Your task to perform on an android device: Open calendar and show me the first week of next month Image 0: 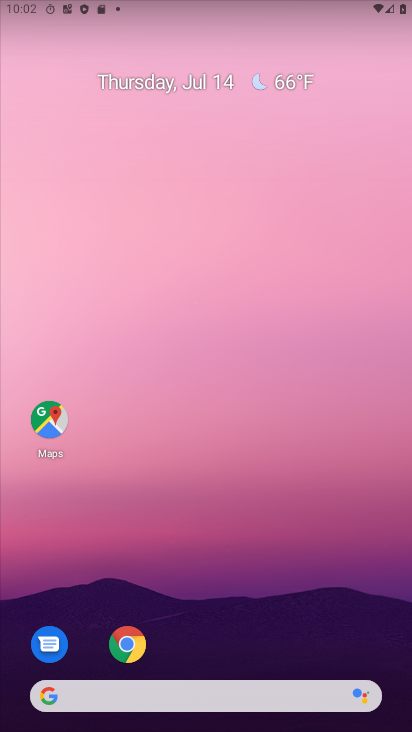
Step 0: drag from (308, 639) to (249, 253)
Your task to perform on an android device: Open calendar and show me the first week of next month Image 1: 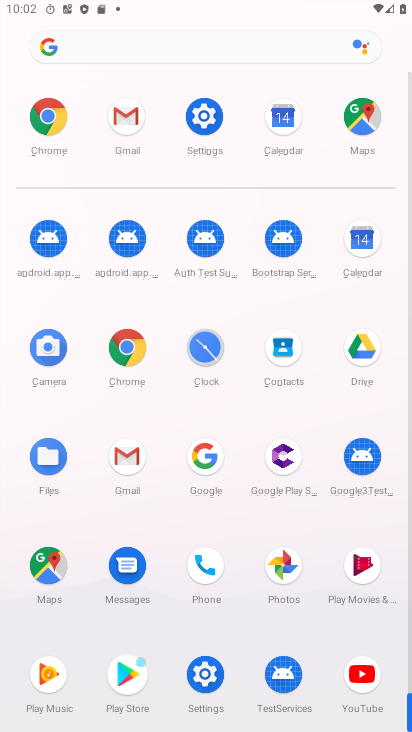
Step 1: click (362, 229)
Your task to perform on an android device: Open calendar and show me the first week of next month Image 2: 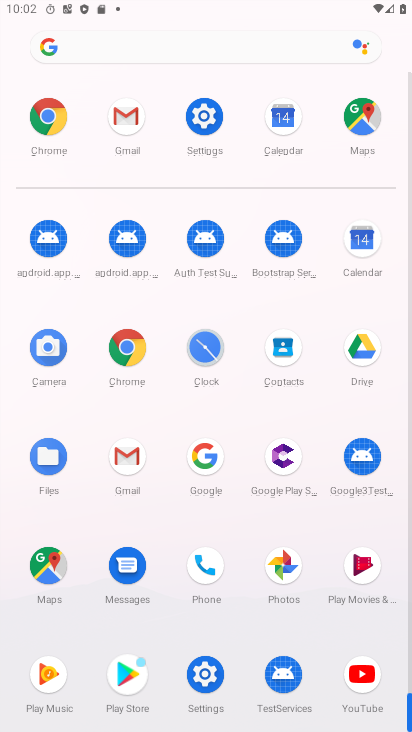
Step 2: click (364, 226)
Your task to perform on an android device: Open calendar and show me the first week of next month Image 3: 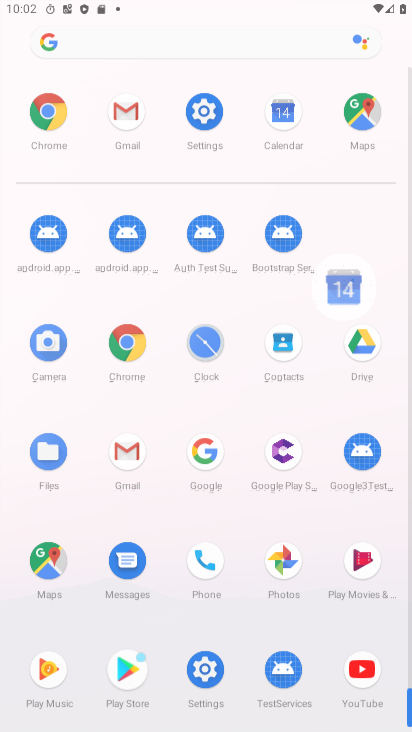
Step 3: click (367, 224)
Your task to perform on an android device: Open calendar and show me the first week of next month Image 4: 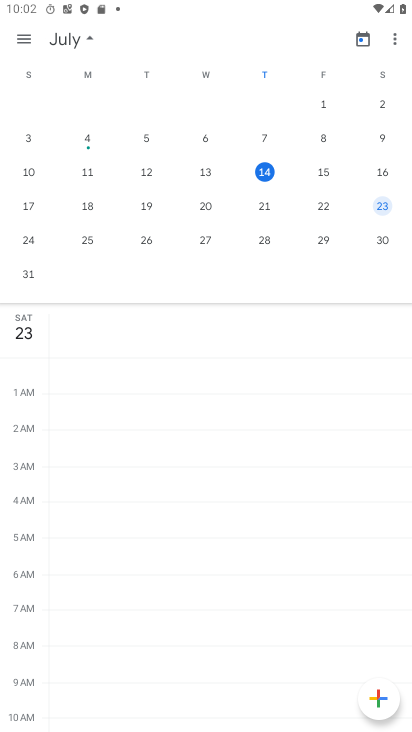
Step 4: drag from (376, 203) to (9, 256)
Your task to perform on an android device: Open calendar and show me the first week of next month Image 5: 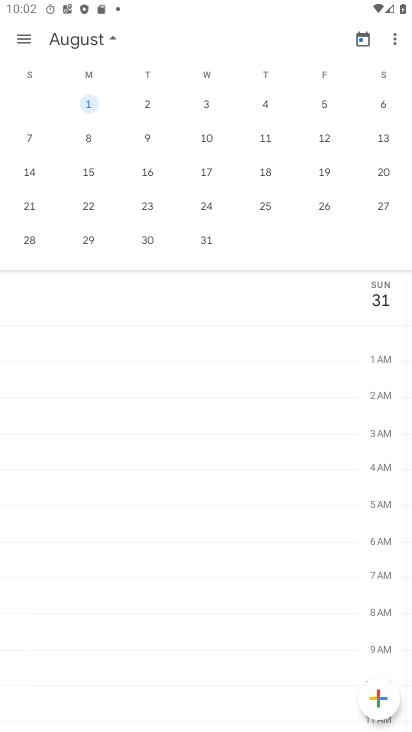
Step 5: drag from (280, 214) to (53, 161)
Your task to perform on an android device: Open calendar and show me the first week of next month Image 6: 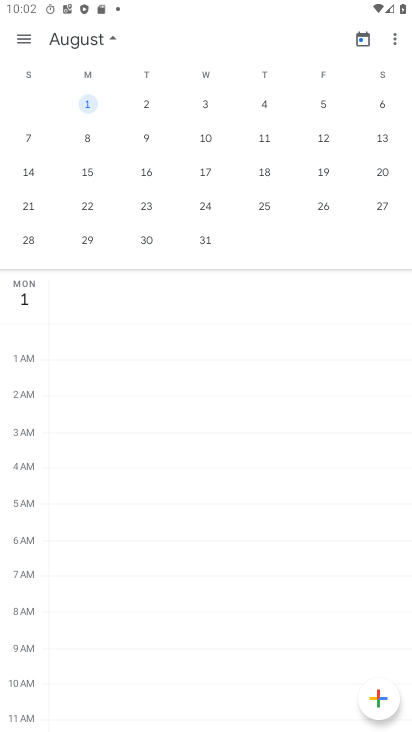
Step 6: click (209, 105)
Your task to perform on an android device: Open calendar and show me the first week of next month Image 7: 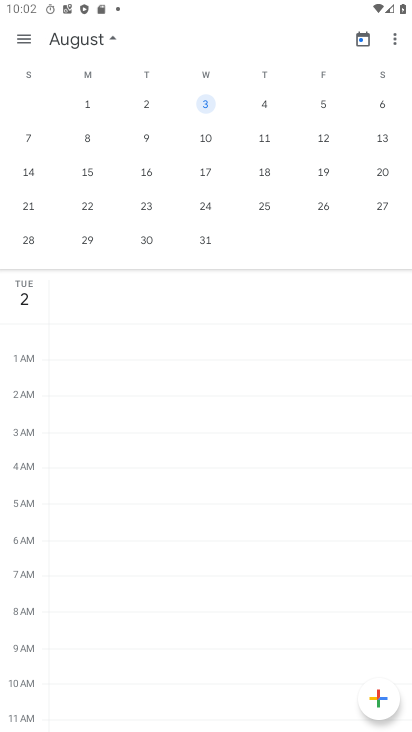
Step 7: click (209, 105)
Your task to perform on an android device: Open calendar and show me the first week of next month Image 8: 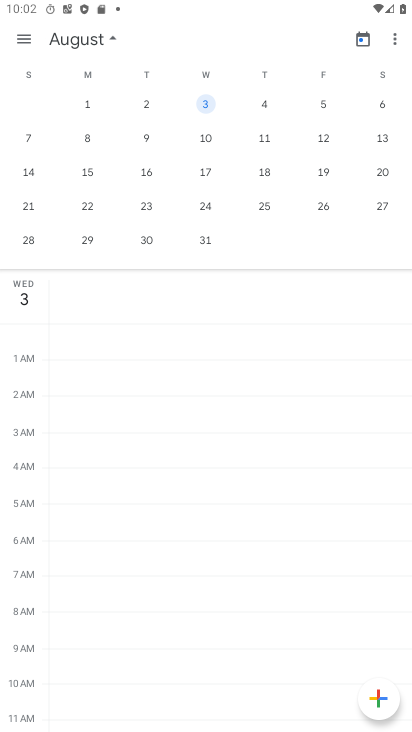
Step 8: click (210, 105)
Your task to perform on an android device: Open calendar and show me the first week of next month Image 9: 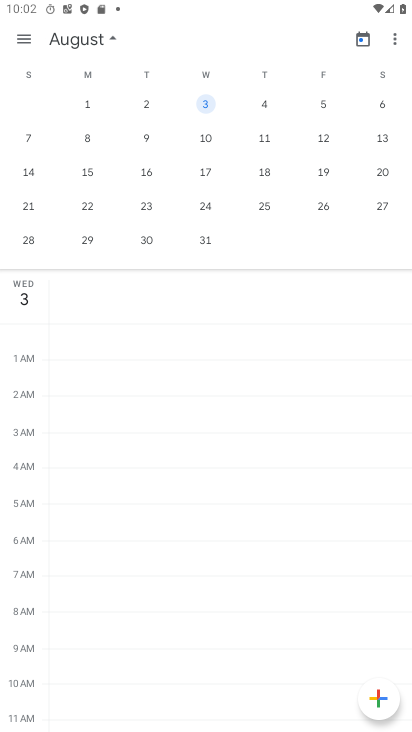
Step 9: click (210, 105)
Your task to perform on an android device: Open calendar and show me the first week of next month Image 10: 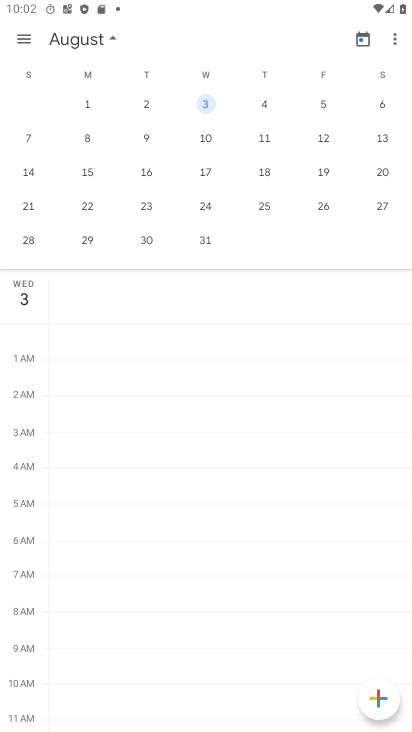
Step 10: task complete